Your task to perform on an android device: create a new album in the google photos Image 0: 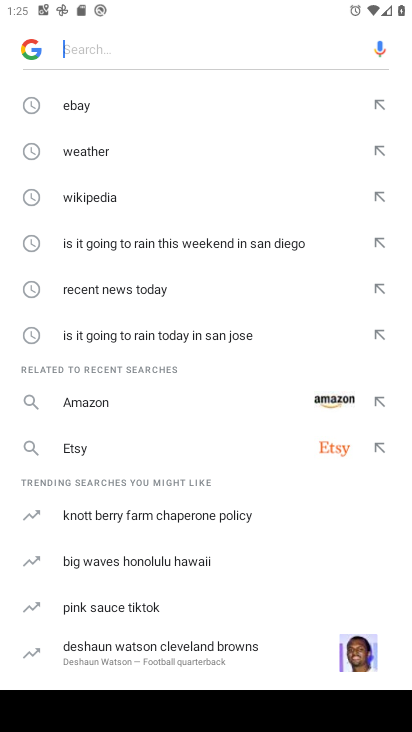
Step 0: press home button
Your task to perform on an android device: create a new album in the google photos Image 1: 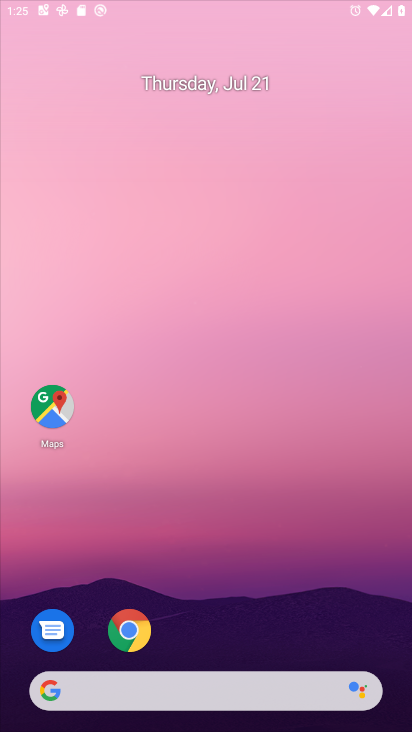
Step 1: drag from (165, 649) to (266, 44)
Your task to perform on an android device: create a new album in the google photos Image 2: 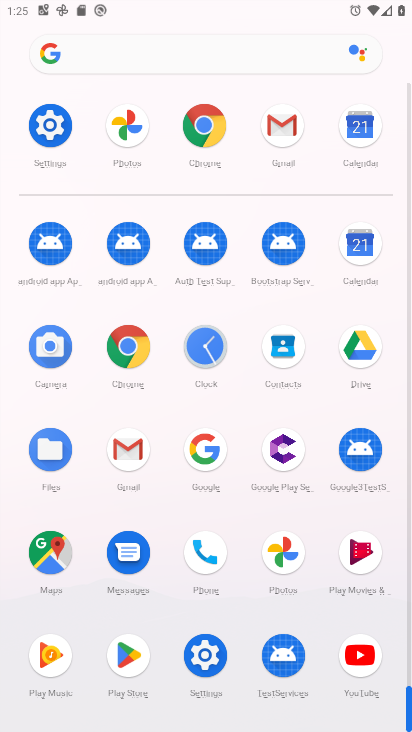
Step 2: click (128, 122)
Your task to perform on an android device: create a new album in the google photos Image 3: 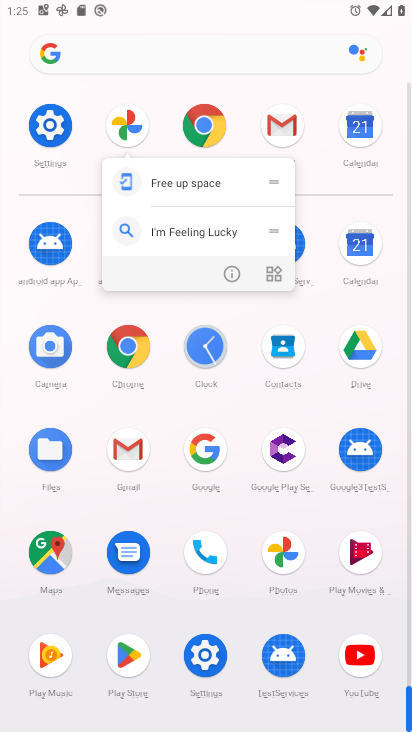
Step 3: click (231, 269)
Your task to perform on an android device: create a new album in the google photos Image 4: 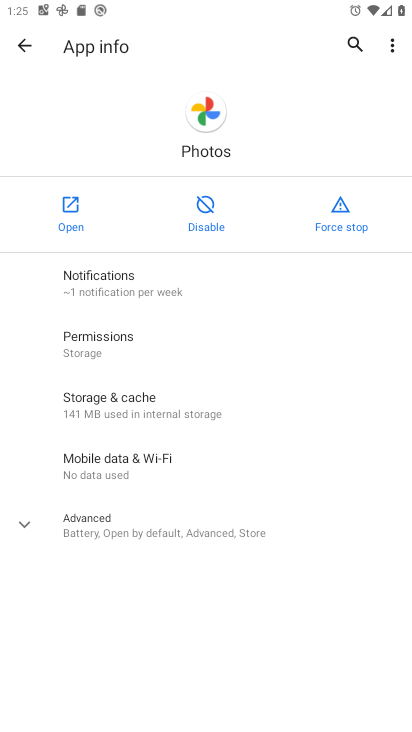
Step 4: click (43, 209)
Your task to perform on an android device: create a new album in the google photos Image 5: 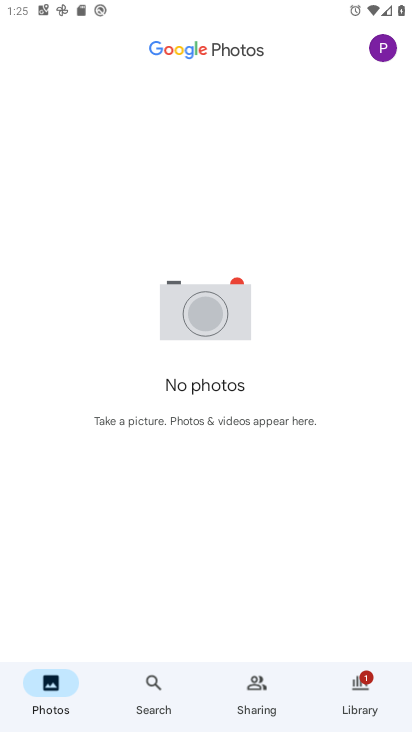
Step 5: drag from (203, 604) to (219, 343)
Your task to perform on an android device: create a new album in the google photos Image 6: 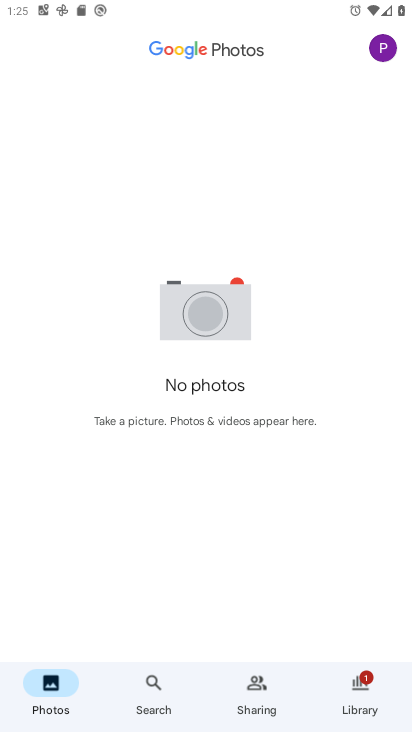
Step 6: drag from (220, 585) to (252, 329)
Your task to perform on an android device: create a new album in the google photos Image 7: 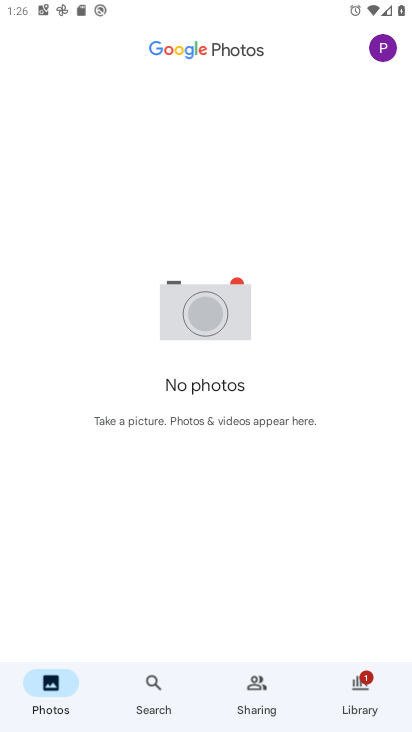
Step 7: drag from (293, 455) to (308, 234)
Your task to perform on an android device: create a new album in the google photos Image 8: 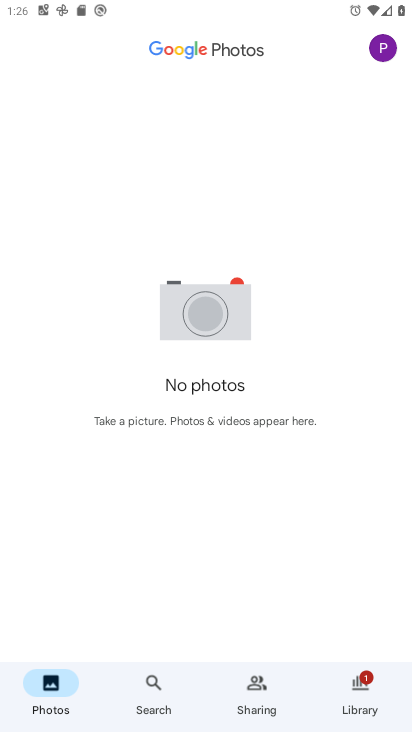
Step 8: click (171, 694)
Your task to perform on an android device: create a new album in the google photos Image 9: 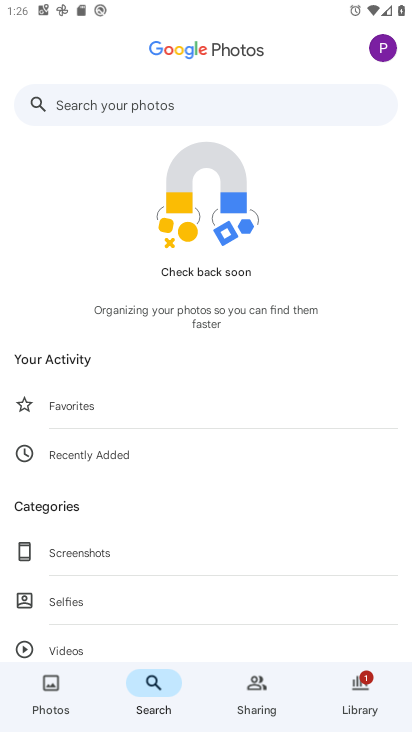
Step 9: click (264, 687)
Your task to perform on an android device: create a new album in the google photos Image 10: 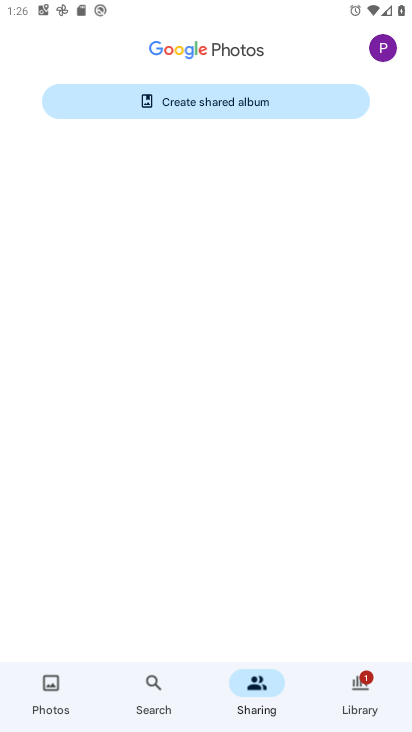
Step 10: click (365, 703)
Your task to perform on an android device: create a new album in the google photos Image 11: 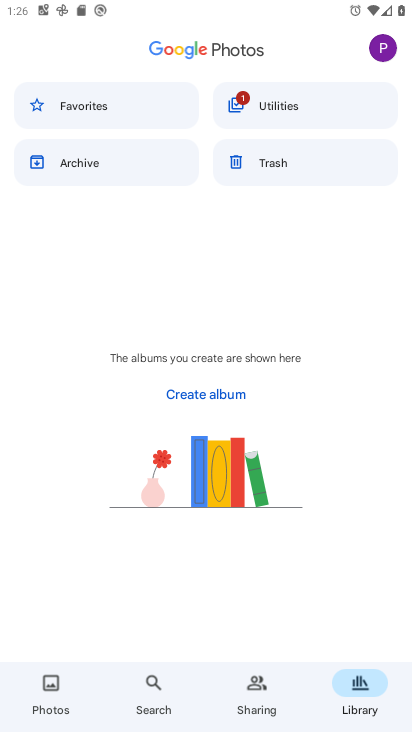
Step 11: click (291, 699)
Your task to perform on an android device: create a new album in the google photos Image 12: 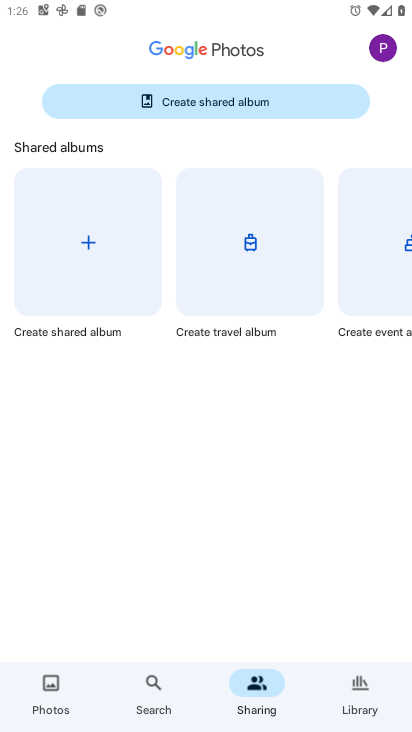
Step 12: click (95, 253)
Your task to perform on an android device: create a new album in the google photos Image 13: 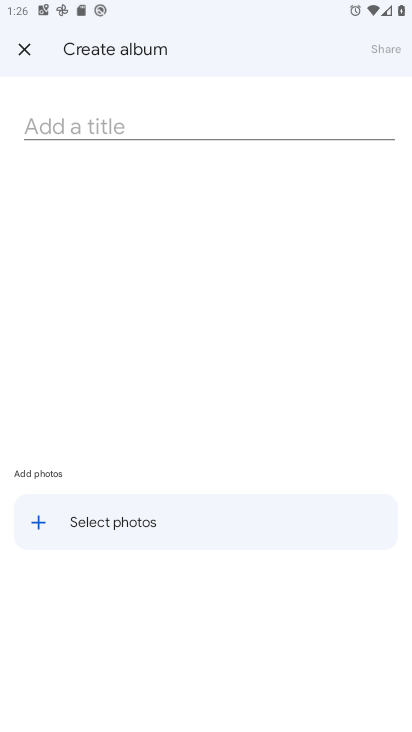
Step 13: click (141, 124)
Your task to perform on an android device: create a new album in the google photos Image 14: 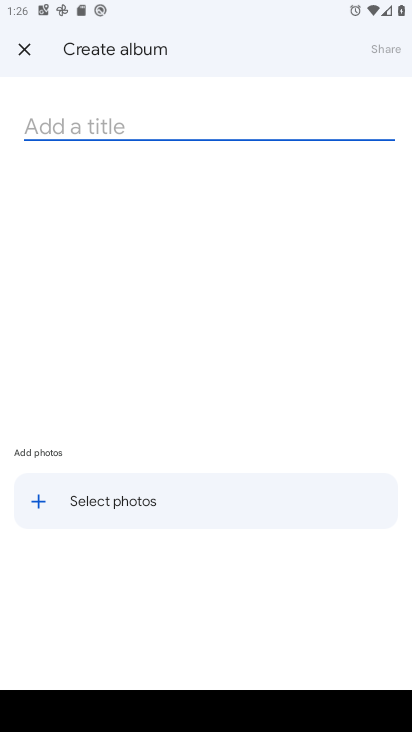
Step 14: type "kmjn"
Your task to perform on an android device: create a new album in the google photos Image 15: 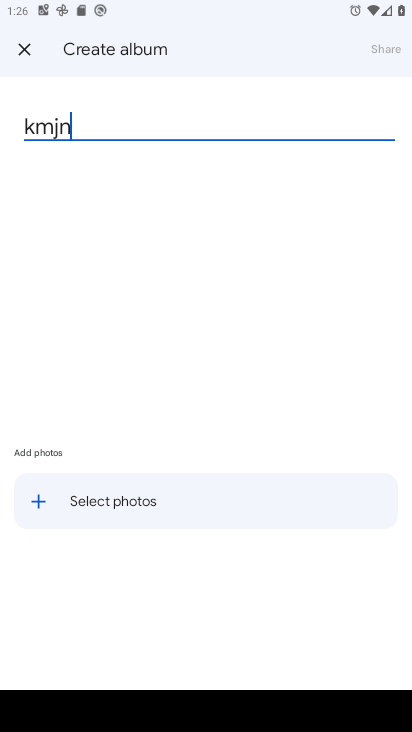
Step 15: click (40, 502)
Your task to perform on an android device: create a new album in the google photos Image 16: 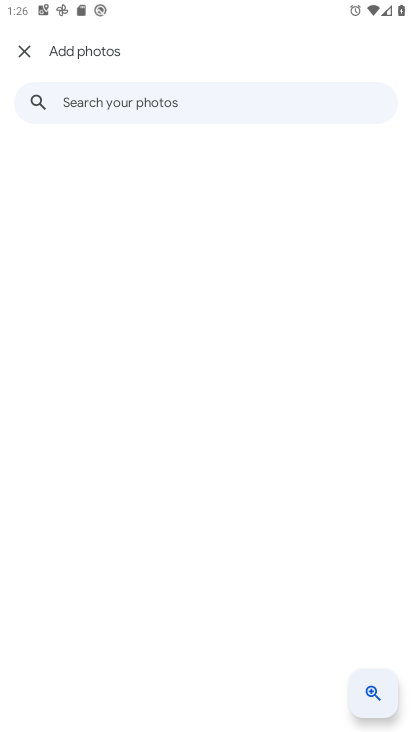
Step 16: click (128, 268)
Your task to perform on an android device: create a new album in the google photos Image 17: 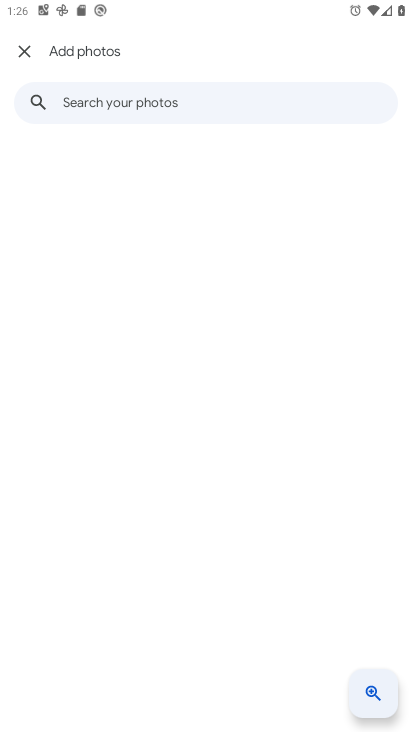
Step 17: click (252, 365)
Your task to perform on an android device: create a new album in the google photos Image 18: 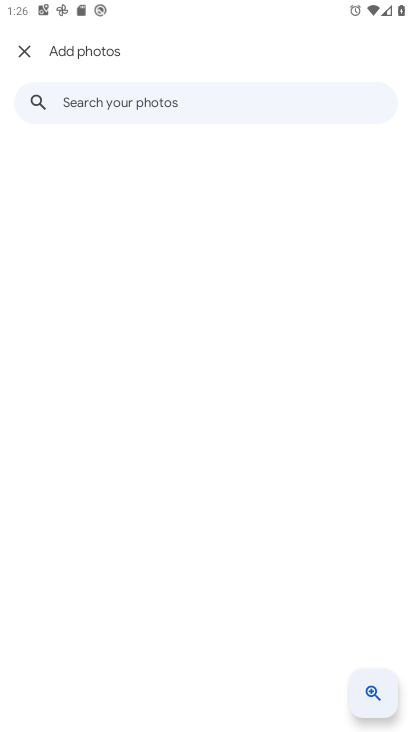
Step 18: click (199, 352)
Your task to perform on an android device: create a new album in the google photos Image 19: 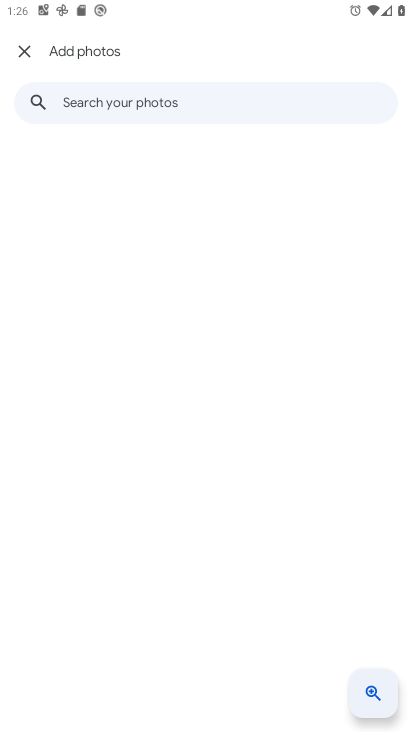
Step 19: click (53, 289)
Your task to perform on an android device: create a new album in the google photos Image 20: 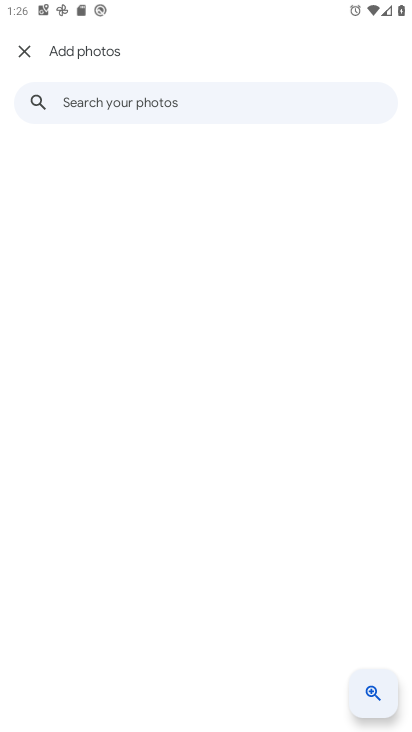
Step 20: click (61, 286)
Your task to perform on an android device: create a new album in the google photos Image 21: 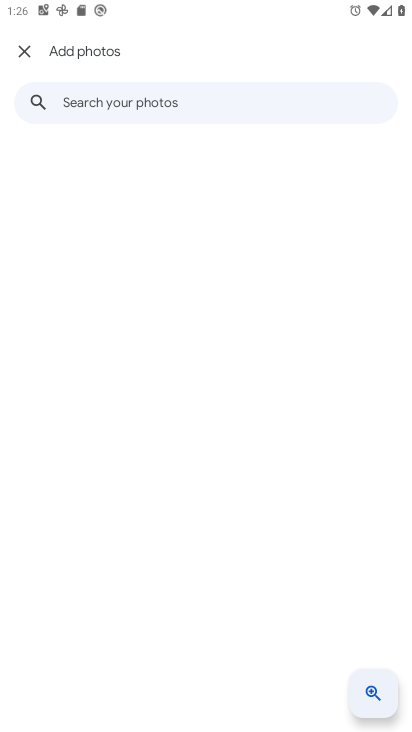
Step 21: click (192, 225)
Your task to perform on an android device: create a new album in the google photos Image 22: 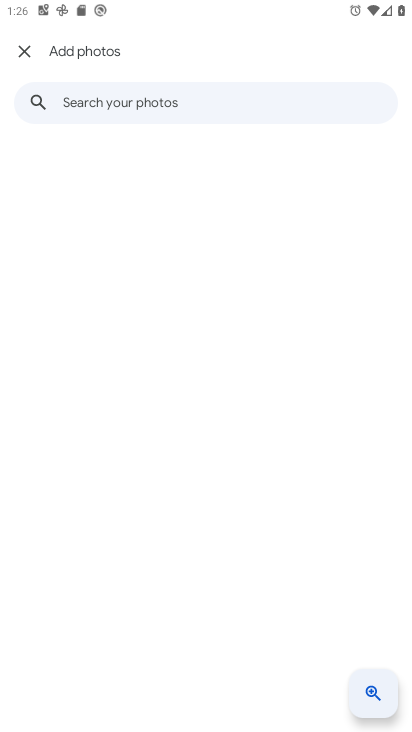
Step 22: click (176, 310)
Your task to perform on an android device: create a new album in the google photos Image 23: 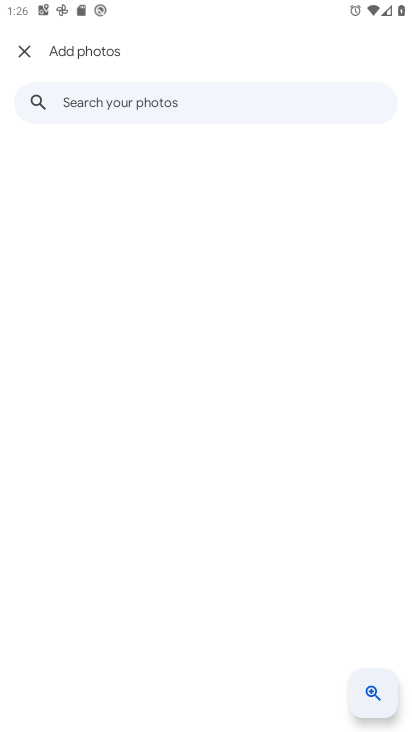
Step 23: click (20, 49)
Your task to perform on an android device: create a new album in the google photos Image 24: 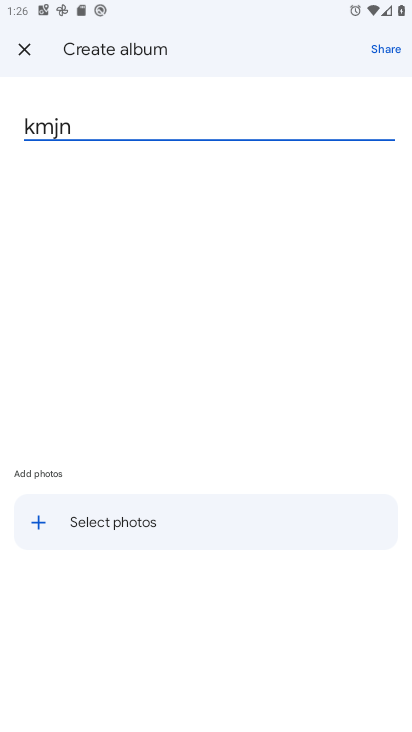
Step 24: task complete